Your task to perform on an android device: uninstall "Upside-Cash back on gas & food" Image 0: 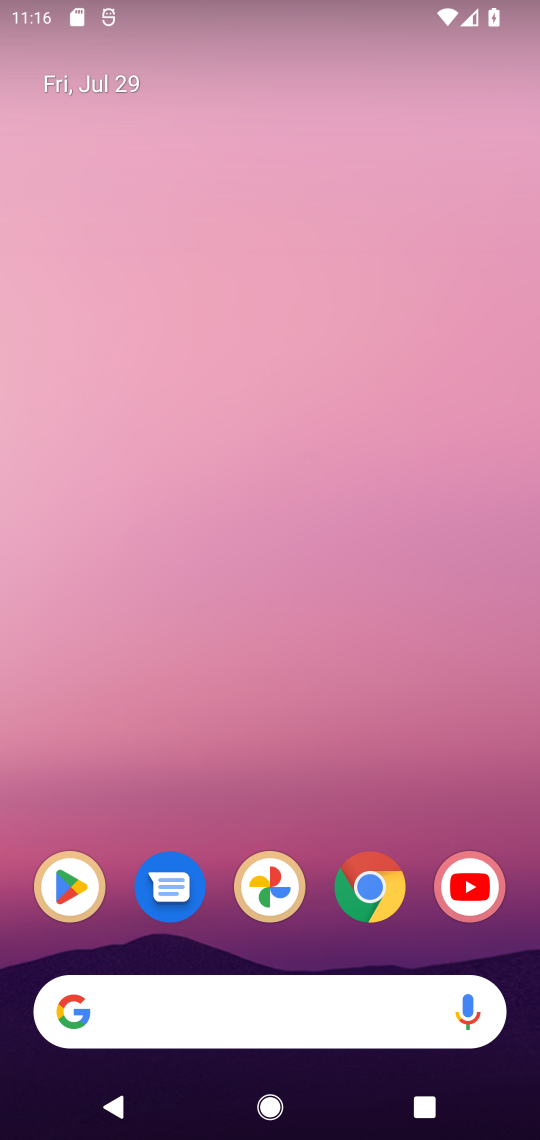
Step 0: drag from (170, 1015) to (284, 198)
Your task to perform on an android device: uninstall "Upside-Cash back on gas & food" Image 1: 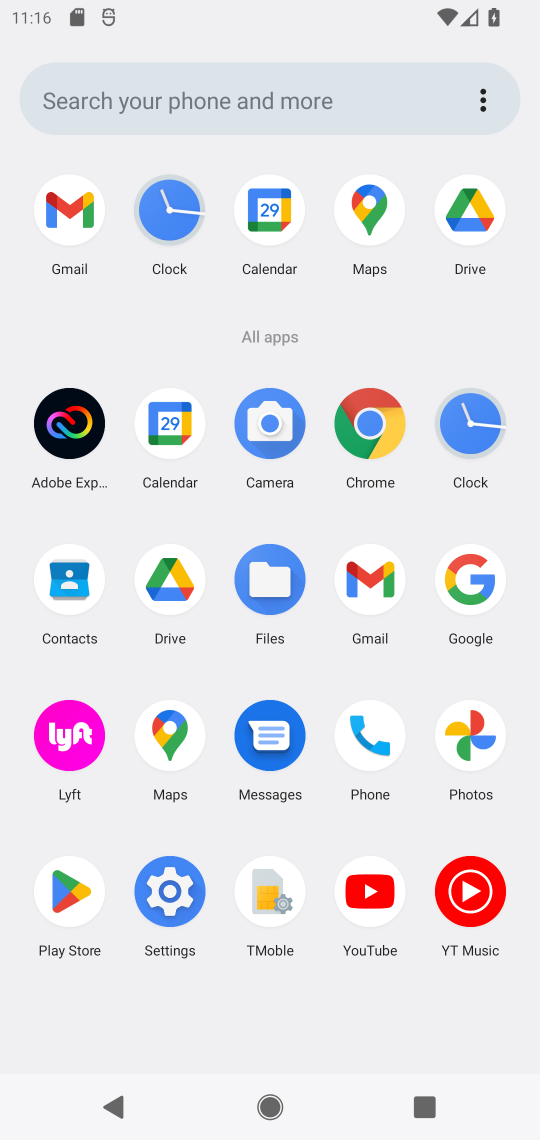
Step 1: click (73, 886)
Your task to perform on an android device: uninstall "Upside-Cash back on gas & food" Image 2: 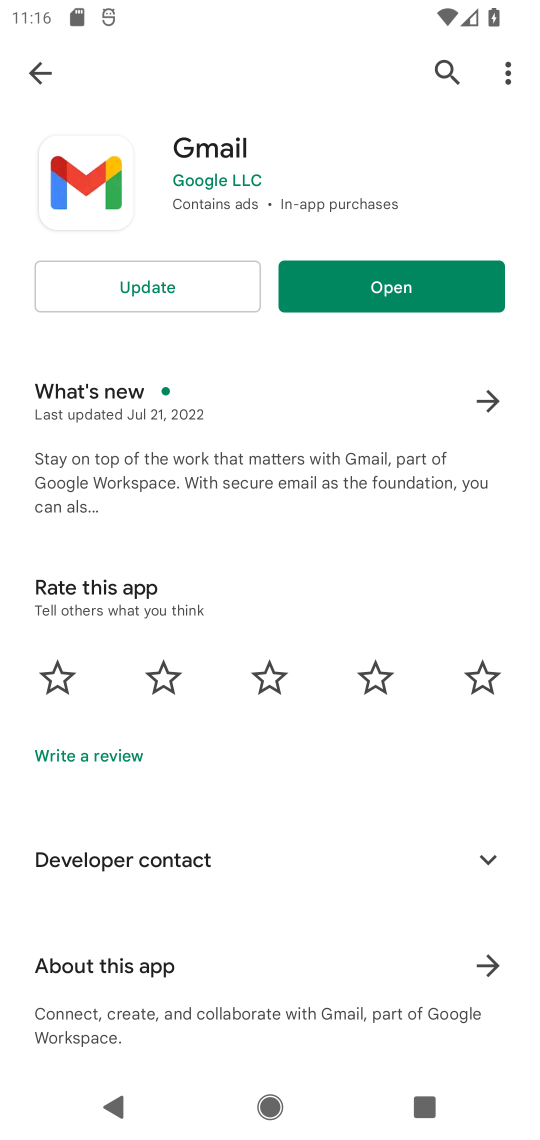
Step 2: click (439, 71)
Your task to perform on an android device: uninstall "Upside-Cash back on gas & food" Image 3: 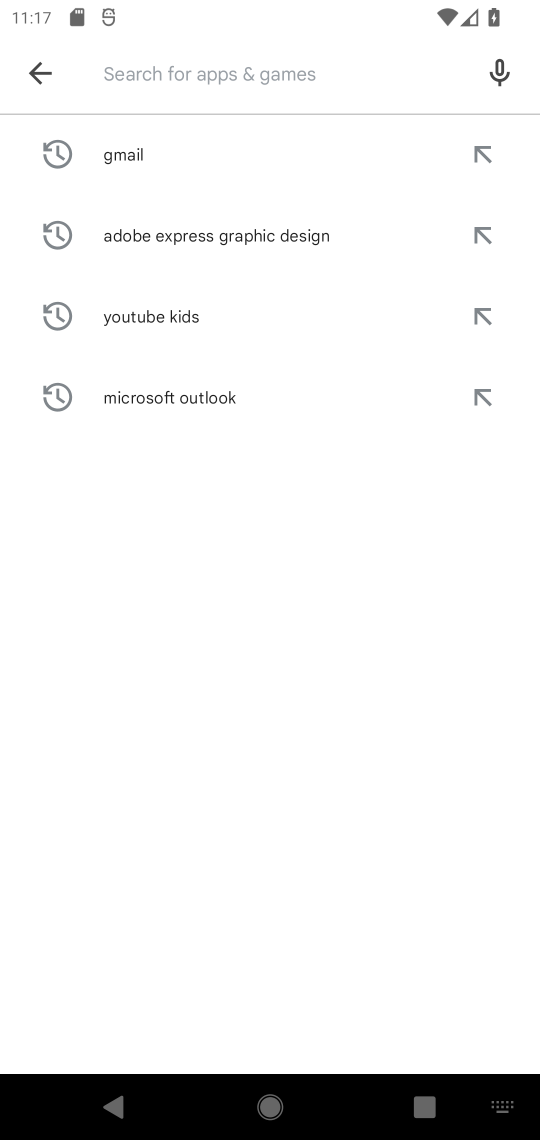
Step 3: click (188, 74)
Your task to perform on an android device: uninstall "Upside-Cash back on gas & food" Image 4: 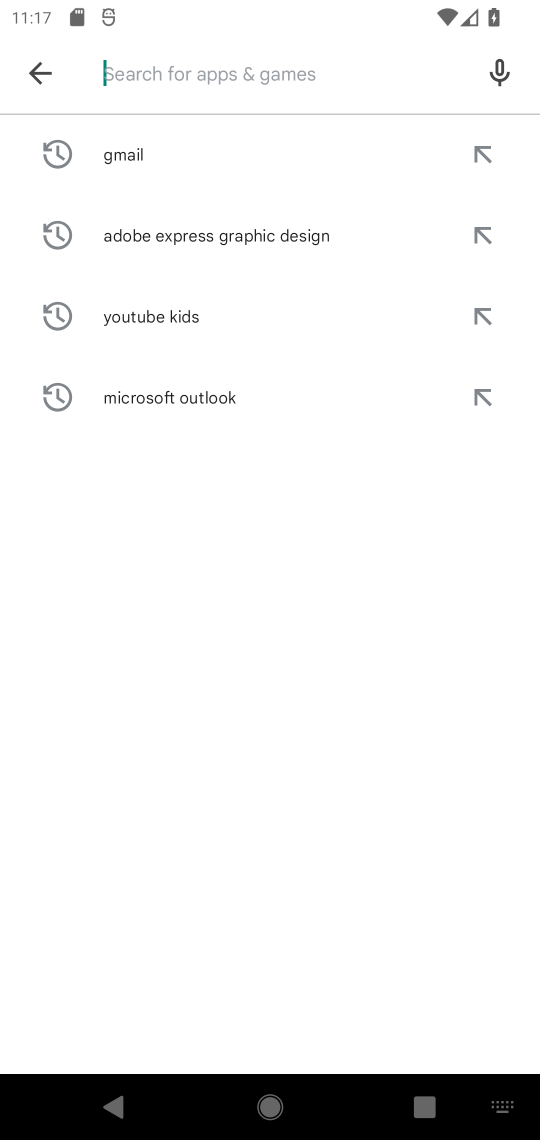
Step 4: type "Upside-Cash back on gas & food"
Your task to perform on an android device: uninstall "Upside-Cash back on gas & food" Image 5: 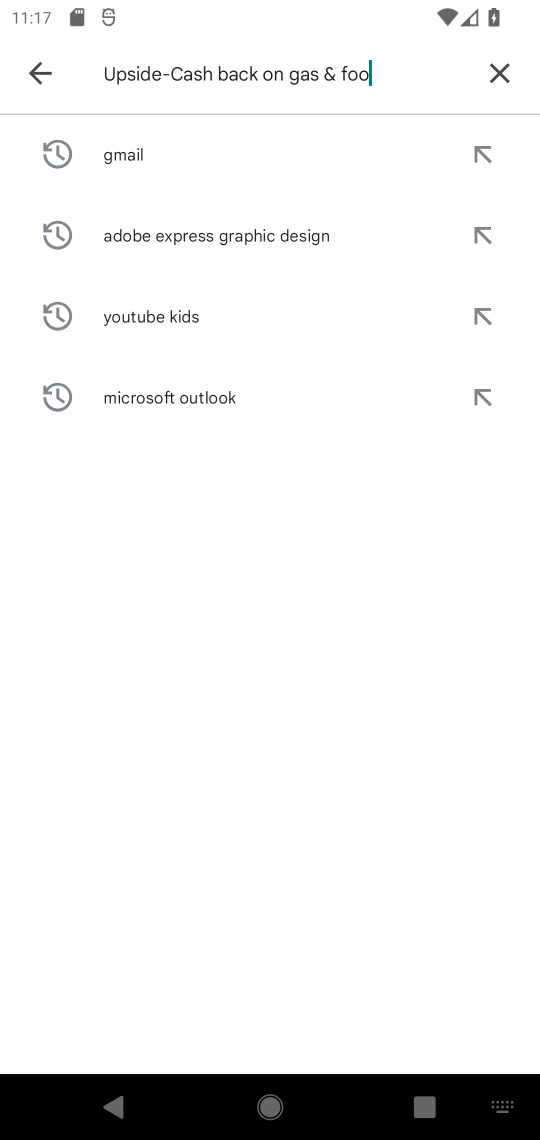
Step 5: type ""
Your task to perform on an android device: uninstall "Upside-Cash back on gas & food" Image 6: 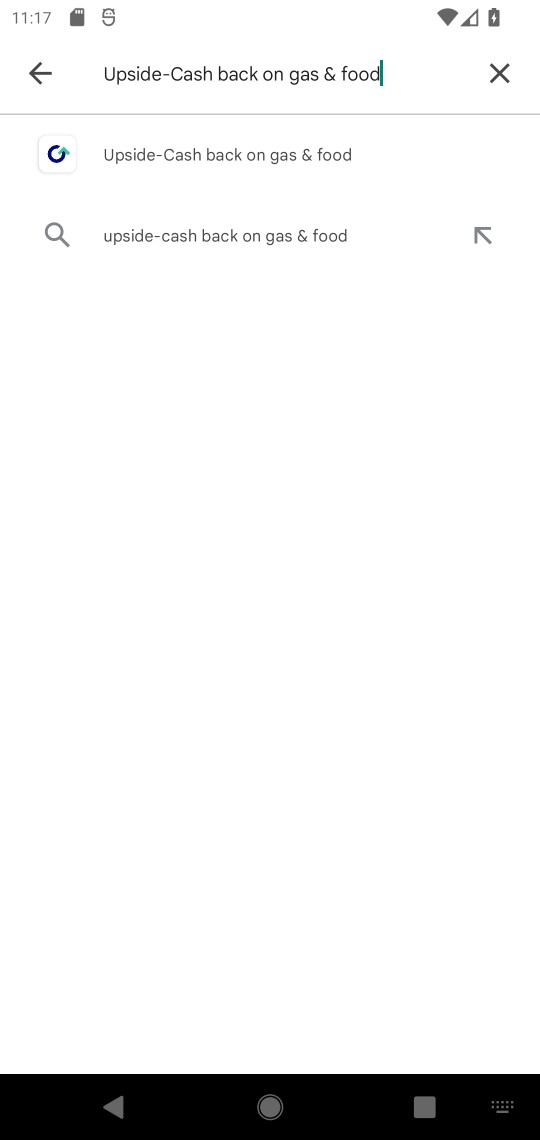
Step 6: click (312, 157)
Your task to perform on an android device: uninstall "Upside-Cash back on gas & food" Image 7: 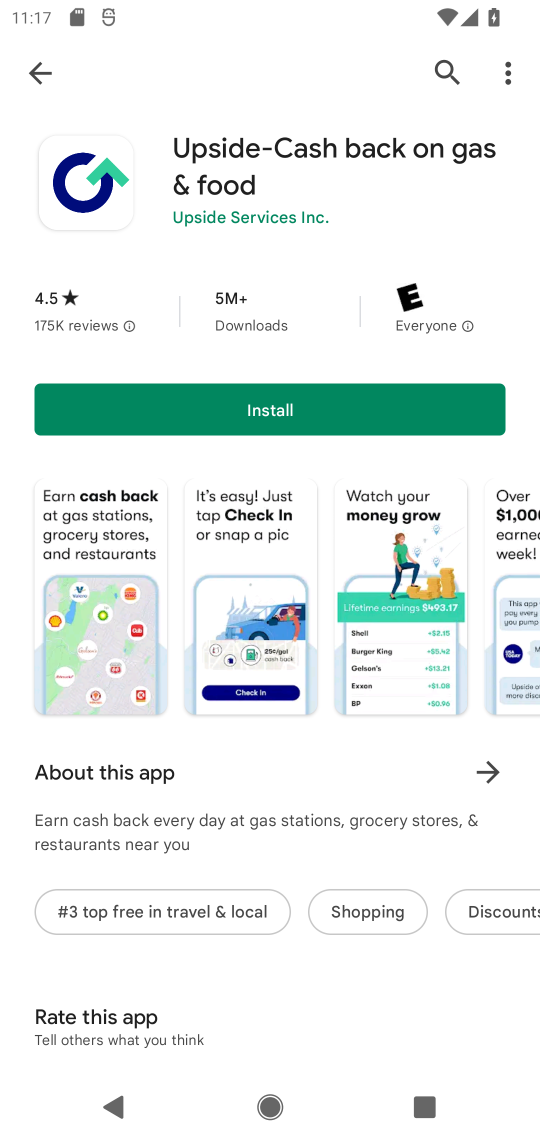
Step 7: task complete